Your task to perform on an android device: Open battery settings Image 0: 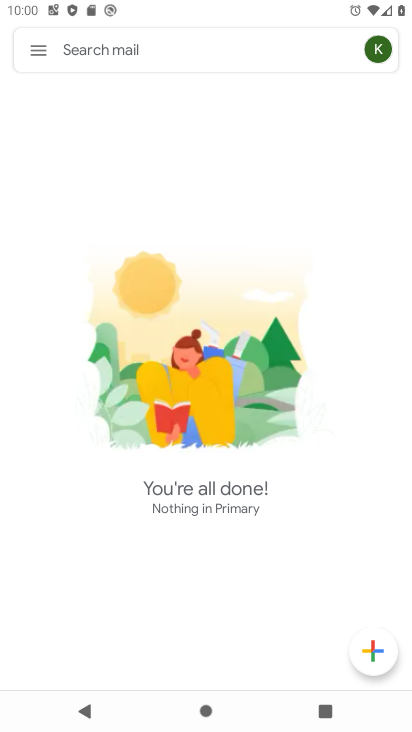
Step 0: press back button
Your task to perform on an android device: Open battery settings Image 1: 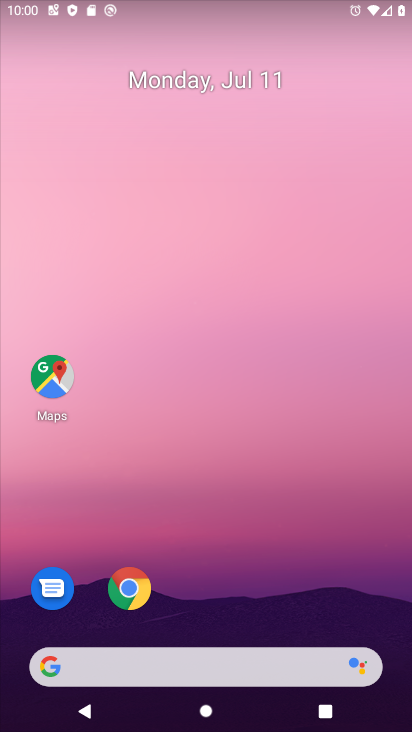
Step 1: drag from (209, 624) to (246, 28)
Your task to perform on an android device: Open battery settings Image 2: 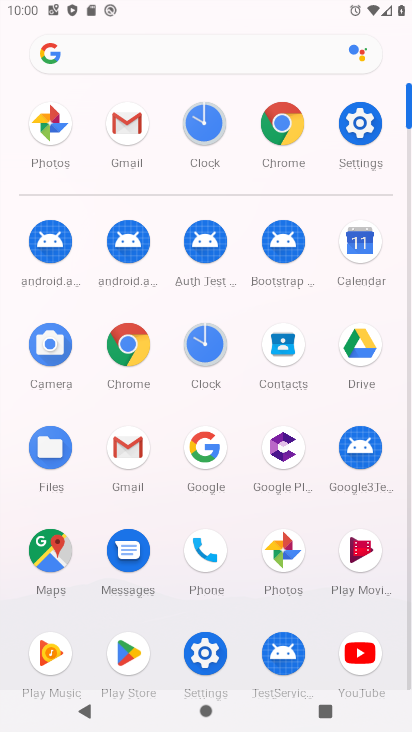
Step 2: click (364, 117)
Your task to perform on an android device: Open battery settings Image 3: 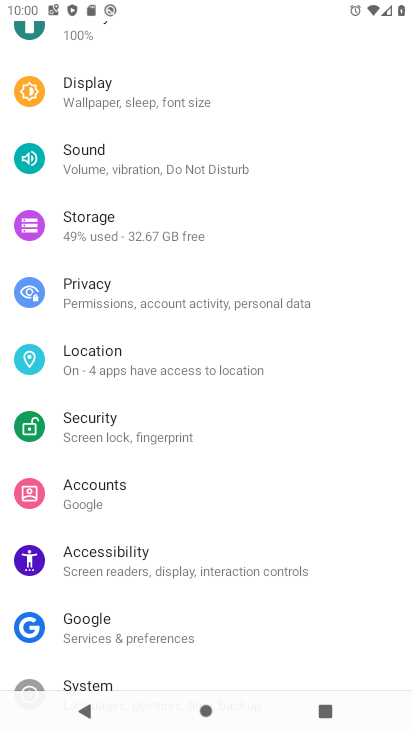
Step 3: drag from (121, 90) to (123, 588)
Your task to perform on an android device: Open battery settings Image 4: 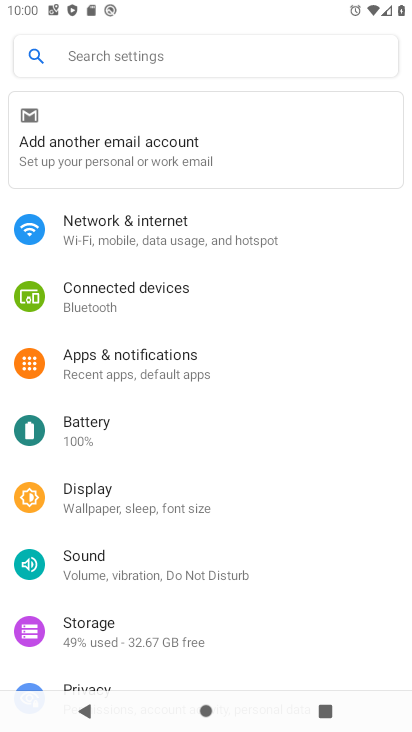
Step 4: click (85, 431)
Your task to perform on an android device: Open battery settings Image 5: 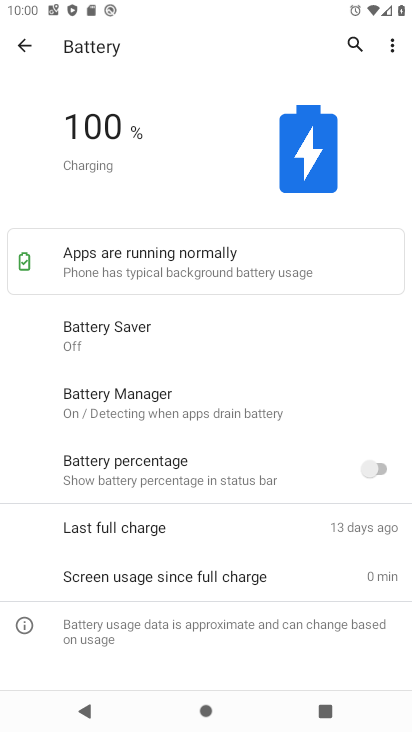
Step 5: task complete